Your task to perform on an android device: turn off picture-in-picture Image 0: 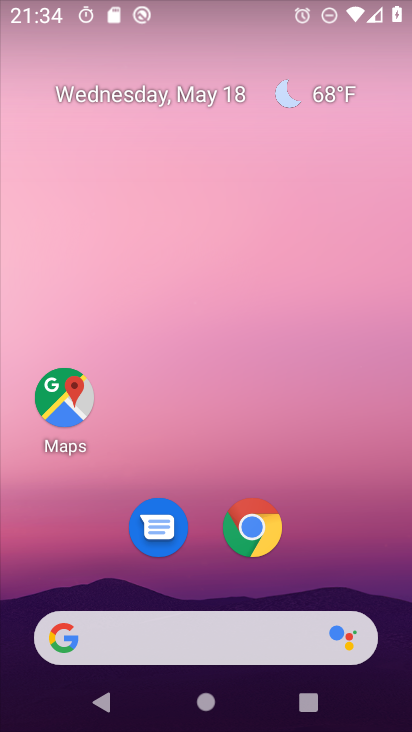
Step 0: click (253, 523)
Your task to perform on an android device: turn off picture-in-picture Image 1: 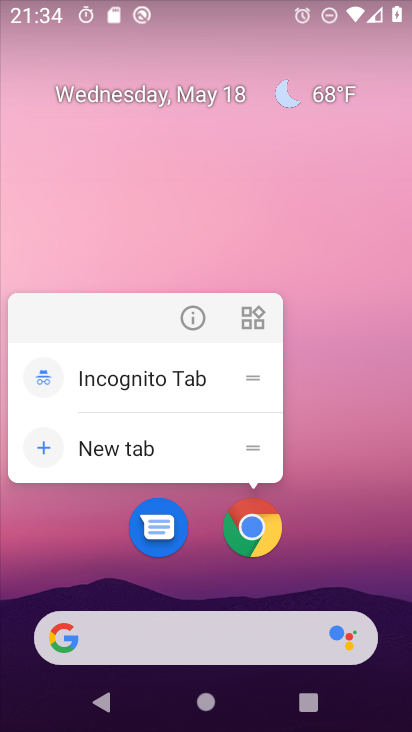
Step 1: click (183, 316)
Your task to perform on an android device: turn off picture-in-picture Image 2: 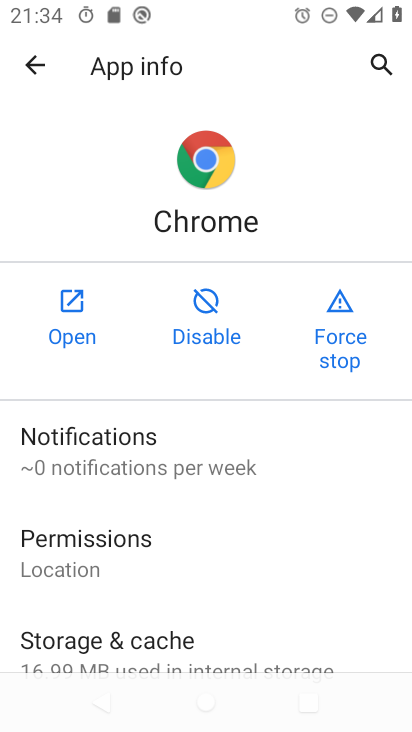
Step 2: drag from (291, 612) to (318, 272)
Your task to perform on an android device: turn off picture-in-picture Image 3: 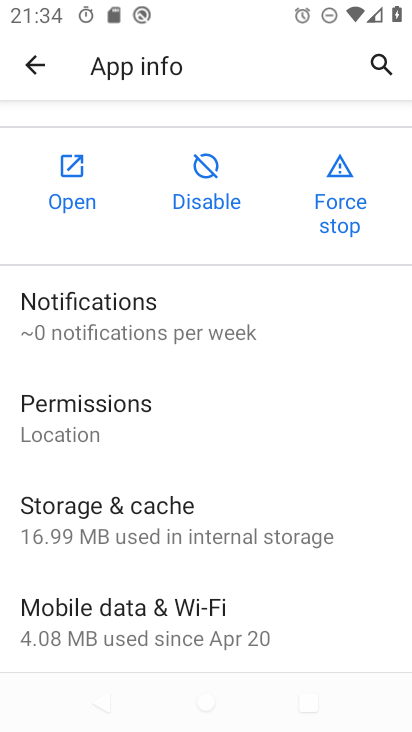
Step 3: click (69, 308)
Your task to perform on an android device: turn off picture-in-picture Image 4: 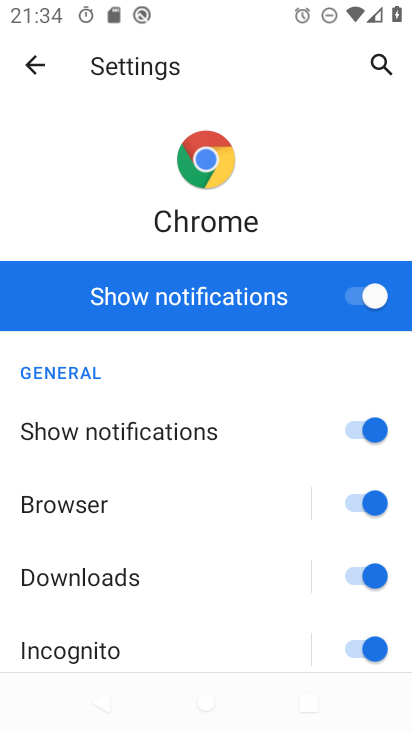
Step 4: drag from (232, 635) to (184, 115)
Your task to perform on an android device: turn off picture-in-picture Image 5: 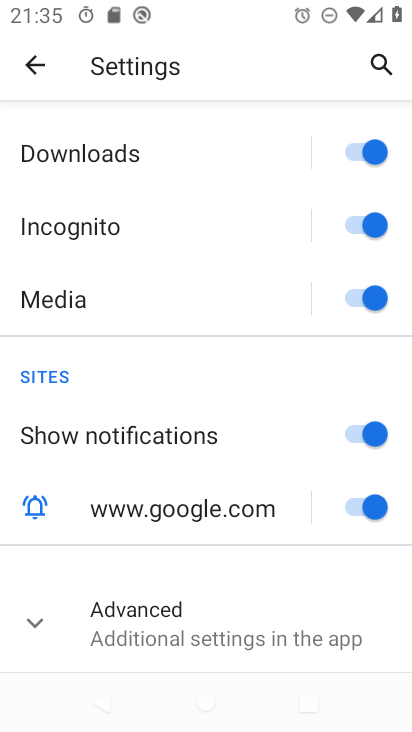
Step 5: click (23, 626)
Your task to perform on an android device: turn off picture-in-picture Image 6: 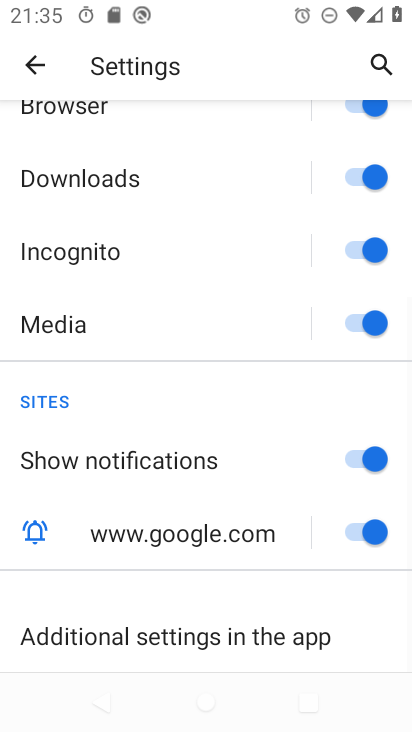
Step 6: drag from (243, 647) to (231, 164)
Your task to perform on an android device: turn off picture-in-picture Image 7: 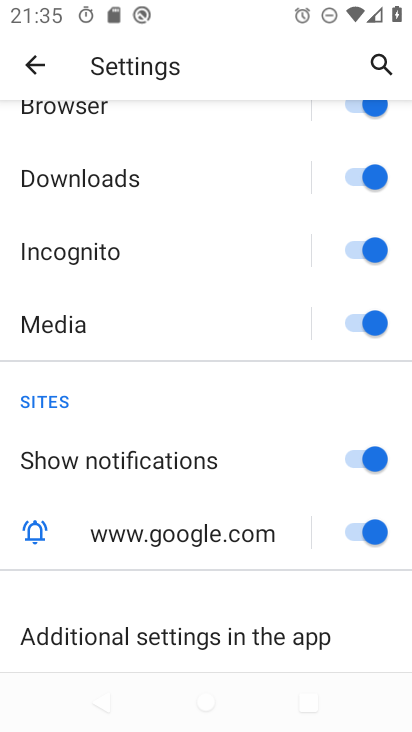
Step 7: drag from (249, 642) to (207, 271)
Your task to perform on an android device: turn off picture-in-picture Image 8: 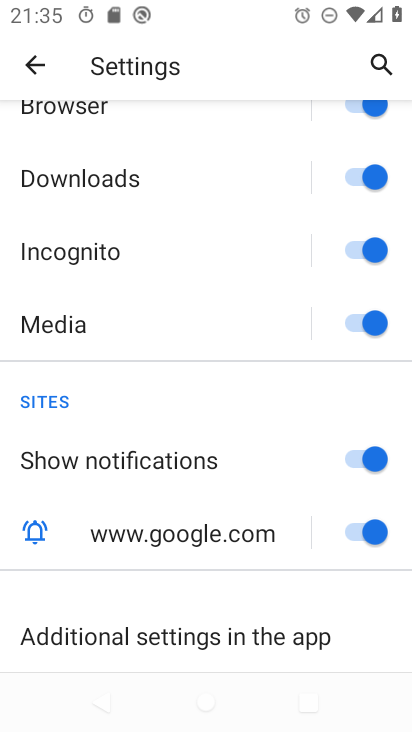
Step 8: drag from (190, 252) to (191, 681)
Your task to perform on an android device: turn off picture-in-picture Image 9: 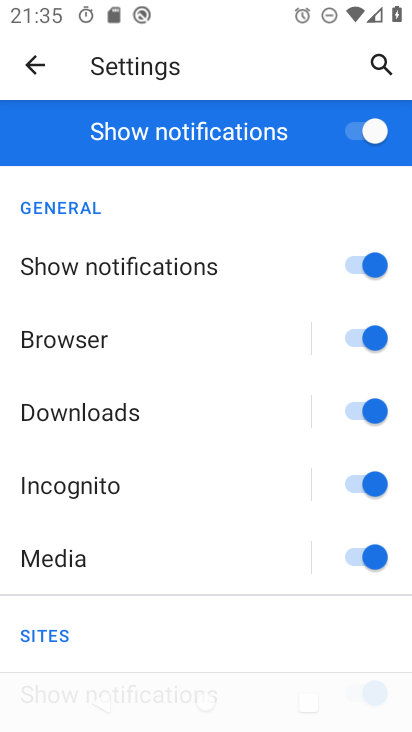
Step 9: click (41, 67)
Your task to perform on an android device: turn off picture-in-picture Image 10: 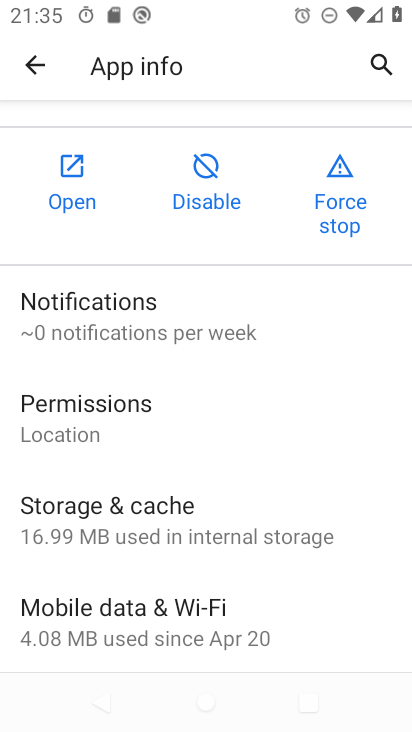
Step 10: click (252, 252)
Your task to perform on an android device: turn off picture-in-picture Image 11: 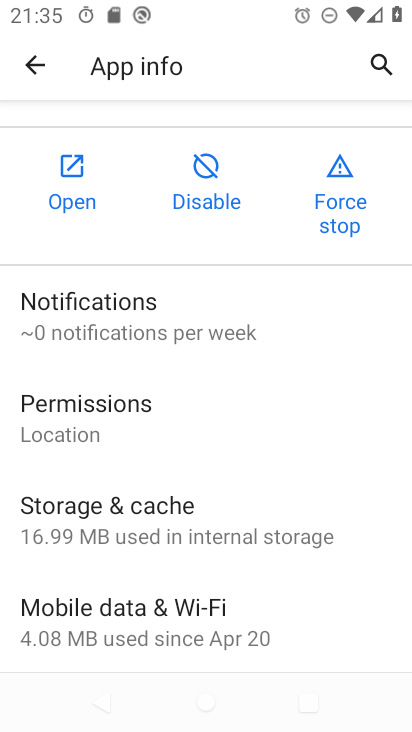
Step 11: click (330, 357)
Your task to perform on an android device: turn off picture-in-picture Image 12: 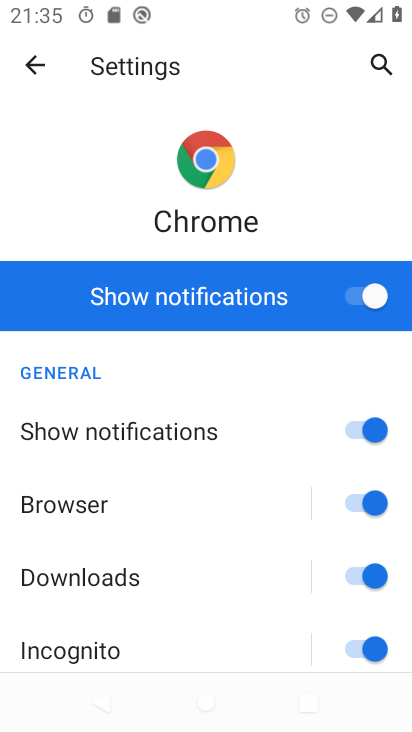
Step 12: click (37, 60)
Your task to perform on an android device: turn off picture-in-picture Image 13: 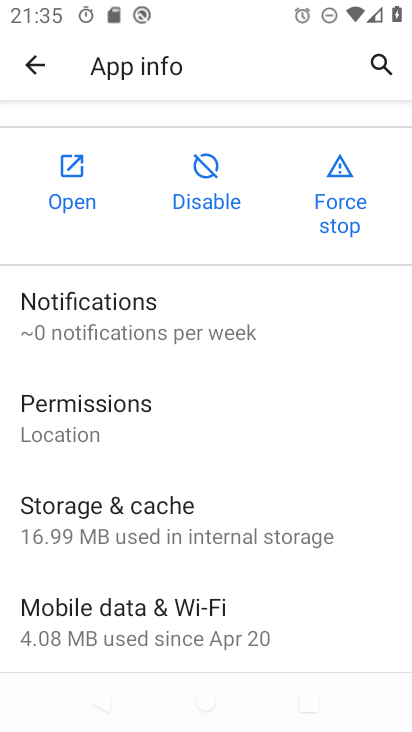
Step 13: drag from (320, 642) to (341, 193)
Your task to perform on an android device: turn off picture-in-picture Image 14: 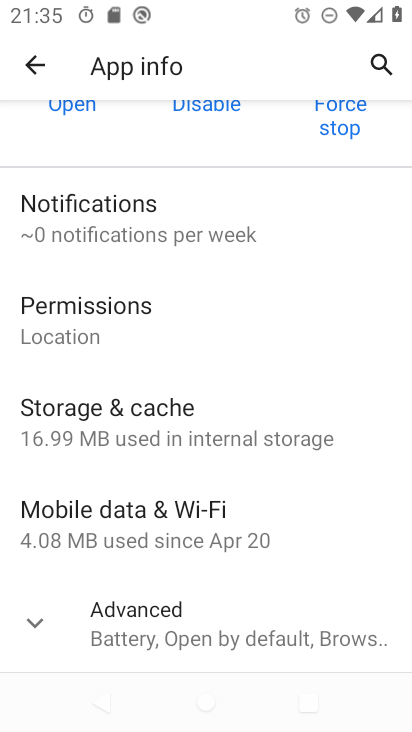
Step 14: click (39, 614)
Your task to perform on an android device: turn off picture-in-picture Image 15: 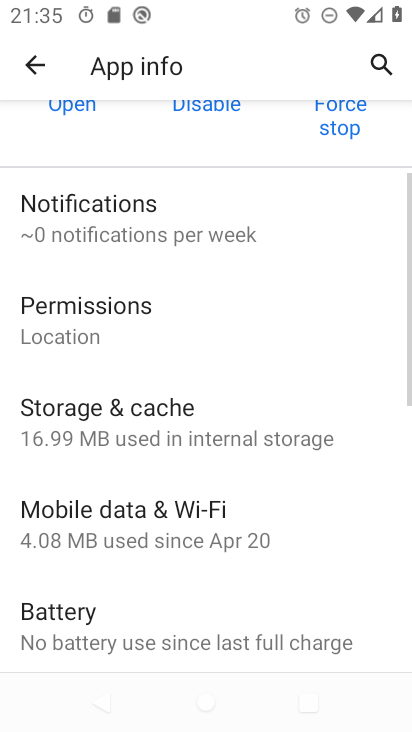
Step 15: drag from (270, 611) to (301, 286)
Your task to perform on an android device: turn off picture-in-picture Image 16: 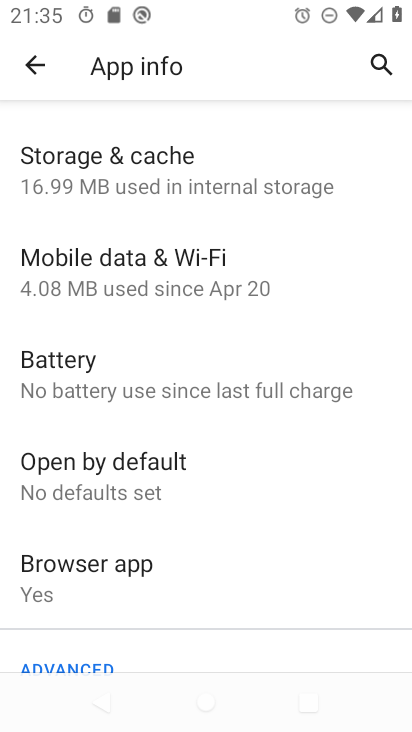
Step 16: drag from (282, 635) to (296, 333)
Your task to perform on an android device: turn off picture-in-picture Image 17: 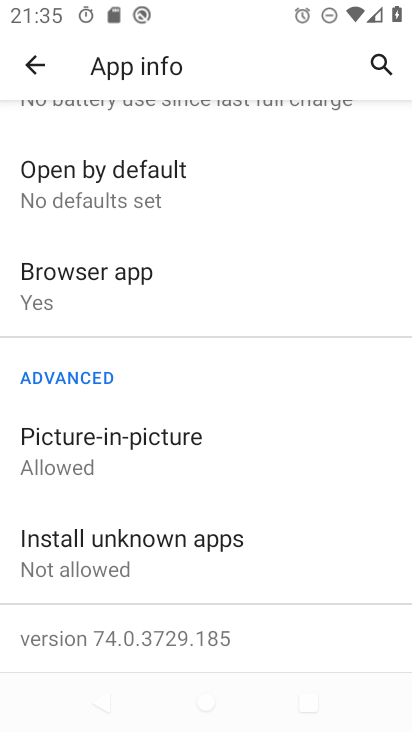
Step 17: click (103, 553)
Your task to perform on an android device: turn off picture-in-picture Image 18: 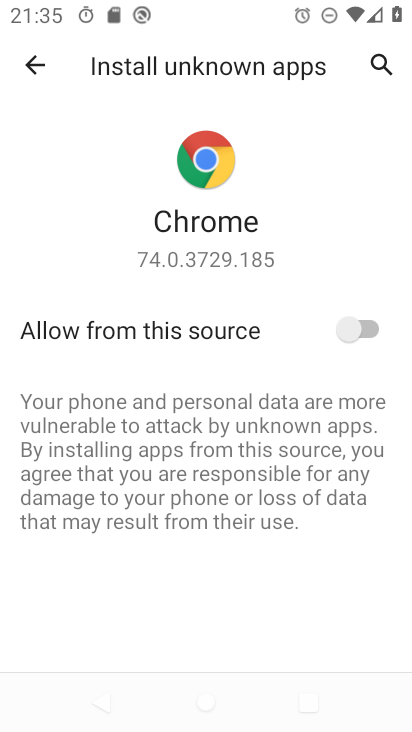
Step 18: task complete